Your task to perform on an android device: Open network settings Image 0: 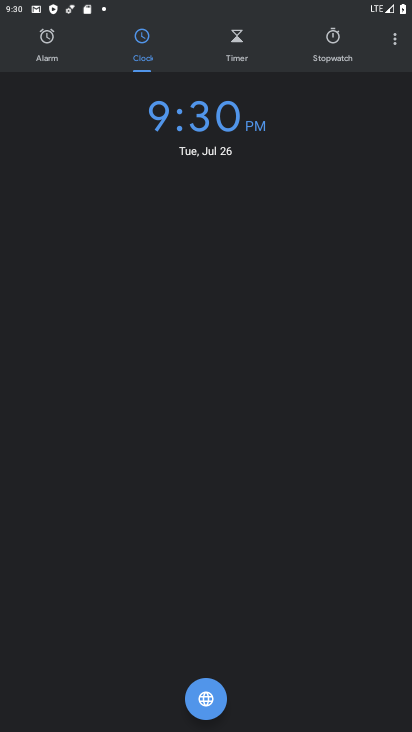
Step 0: press home button
Your task to perform on an android device: Open network settings Image 1: 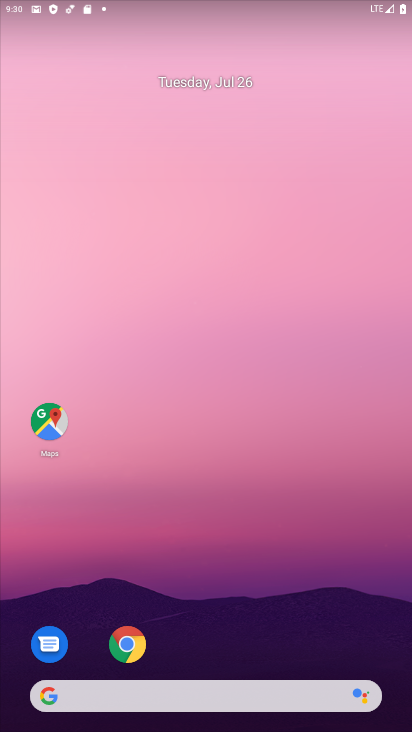
Step 1: drag from (267, 638) to (248, 53)
Your task to perform on an android device: Open network settings Image 2: 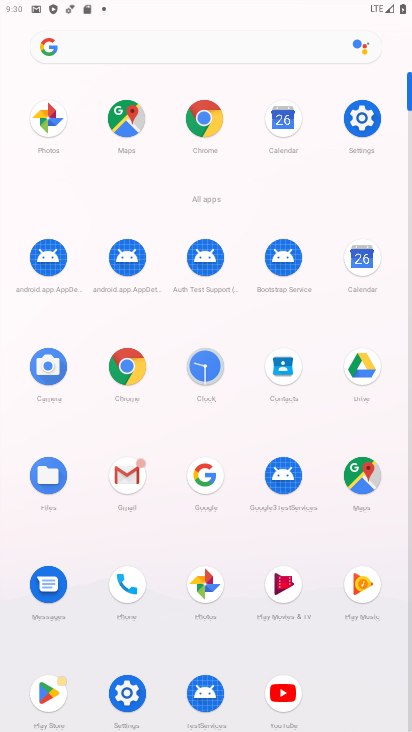
Step 2: click (361, 116)
Your task to perform on an android device: Open network settings Image 3: 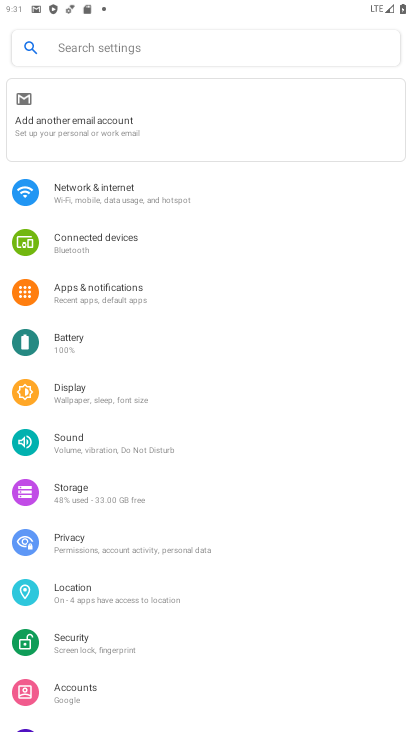
Step 3: click (76, 205)
Your task to perform on an android device: Open network settings Image 4: 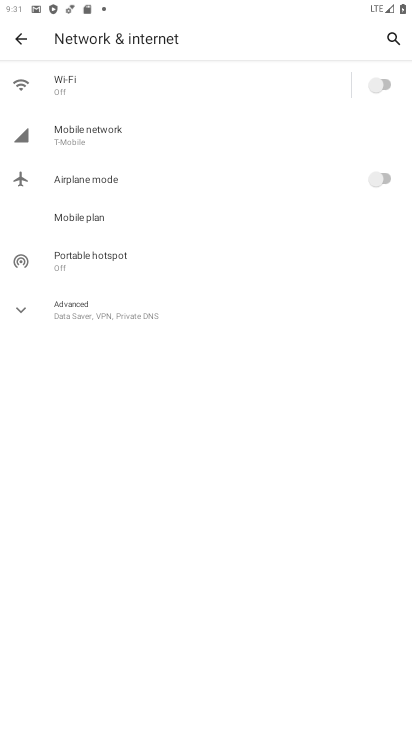
Step 4: click (76, 139)
Your task to perform on an android device: Open network settings Image 5: 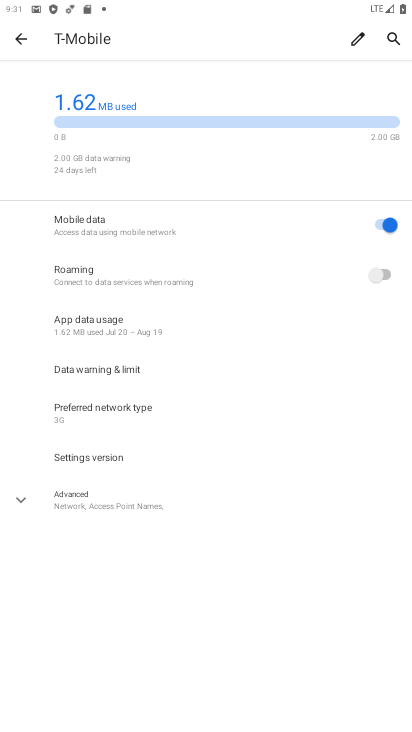
Step 5: click (21, 503)
Your task to perform on an android device: Open network settings Image 6: 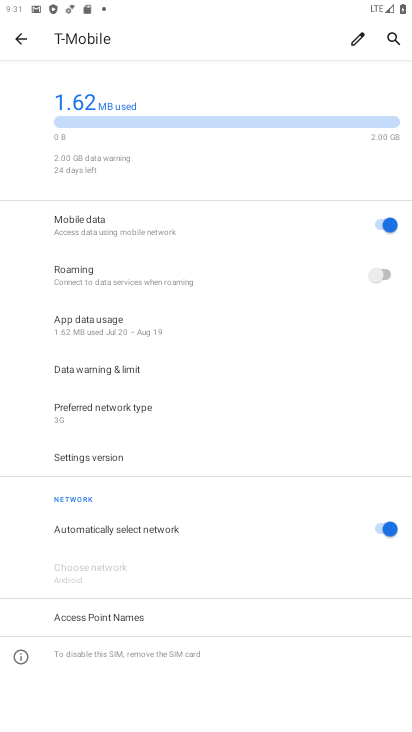
Step 6: task complete